Your task to perform on an android device: Go to Google Image 0: 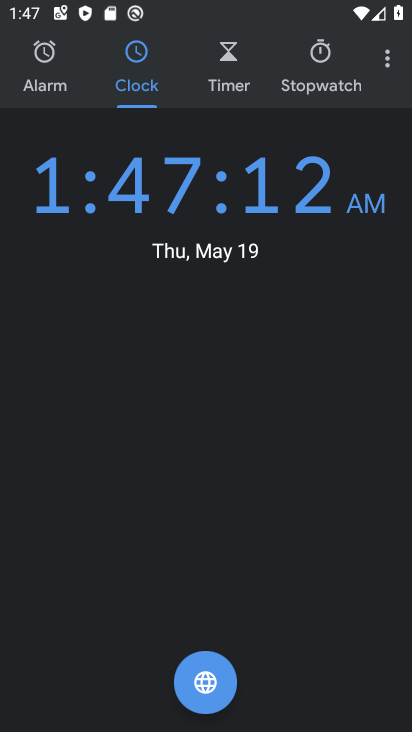
Step 0: press home button
Your task to perform on an android device: Go to Google Image 1: 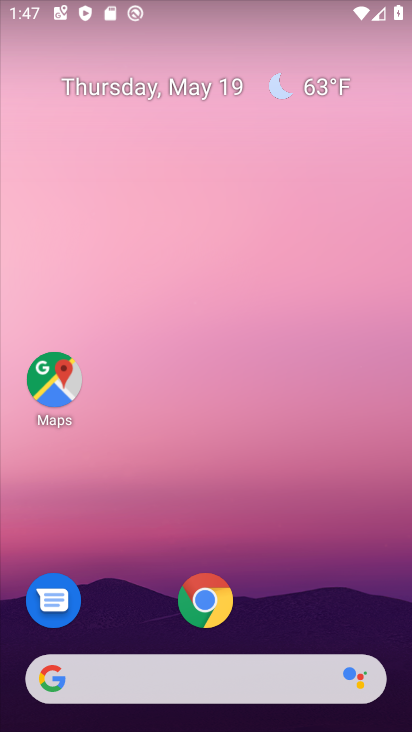
Step 1: drag from (333, 600) to (311, 106)
Your task to perform on an android device: Go to Google Image 2: 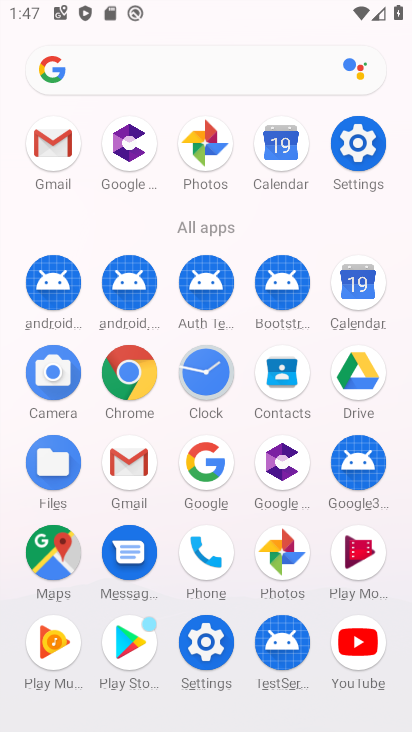
Step 2: click (212, 450)
Your task to perform on an android device: Go to Google Image 3: 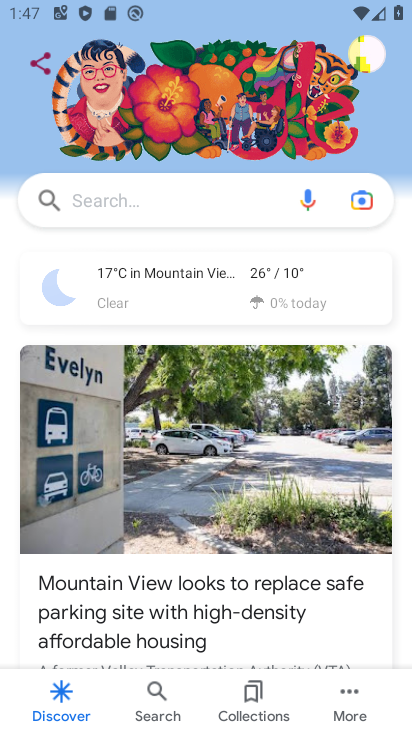
Step 3: task complete